Your task to perform on an android device: turn off notifications in google photos Image 0: 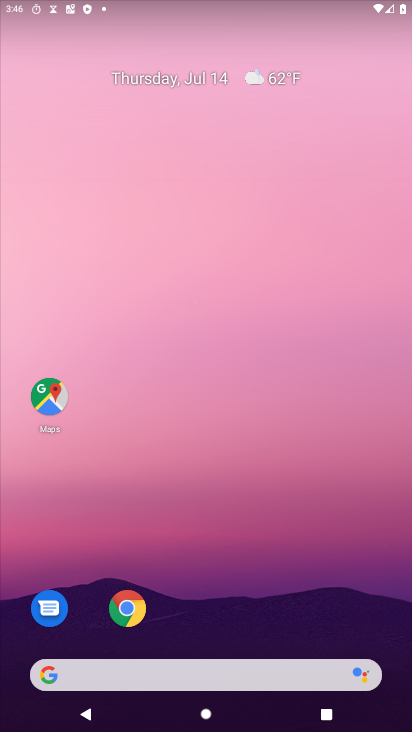
Step 0: drag from (189, 677) to (194, 313)
Your task to perform on an android device: turn off notifications in google photos Image 1: 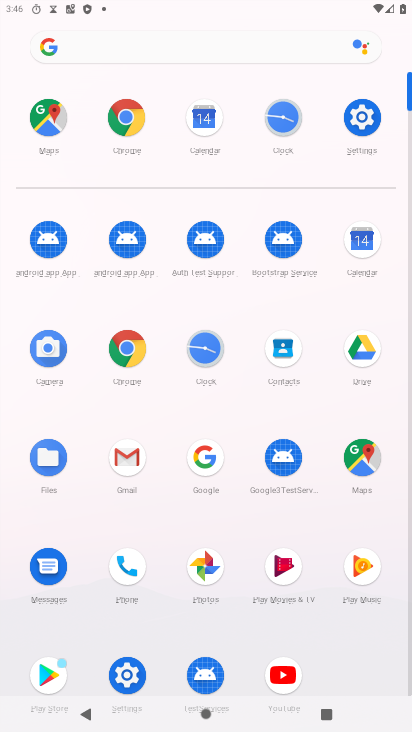
Step 1: click (212, 582)
Your task to perform on an android device: turn off notifications in google photos Image 2: 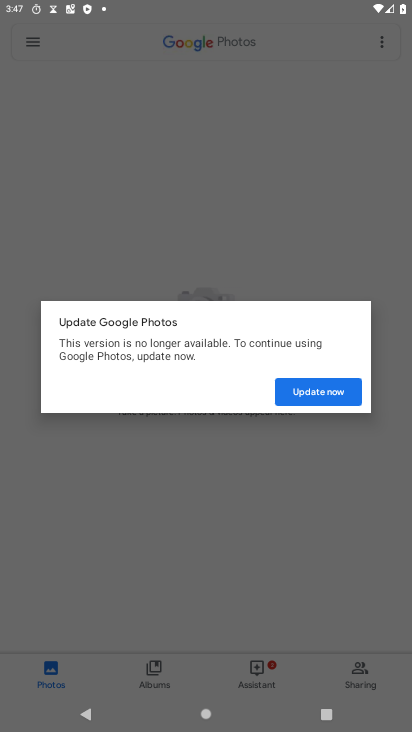
Step 2: click (349, 385)
Your task to perform on an android device: turn off notifications in google photos Image 3: 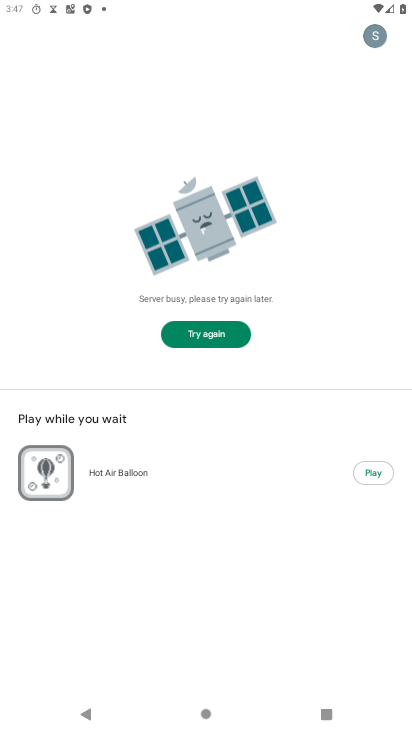
Step 3: task complete